Your task to perform on an android device: What's the weather going to be tomorrow? Image 0: 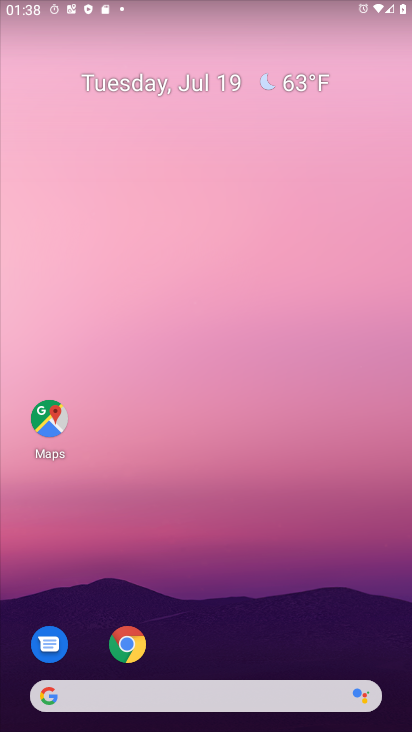
Step 0: drag from (188, 729) to (185, 243)
Your task to perform on an android device: What's the weather going to be tomorrow? Image 1: 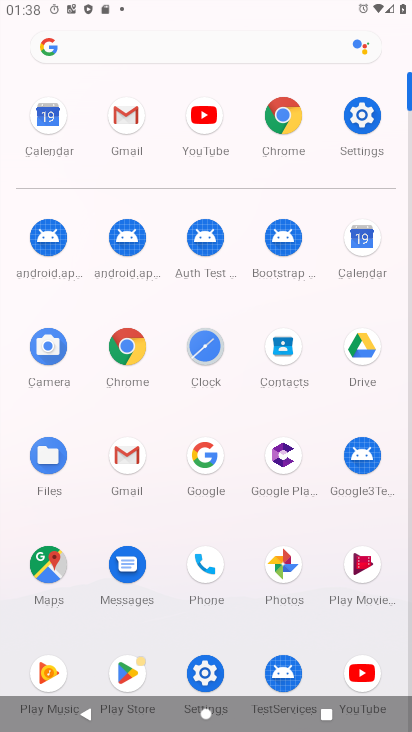
Step 1: click (192, 454)
Your task to perform on an android device: What's the weather going to be tomorrow? Image 2: 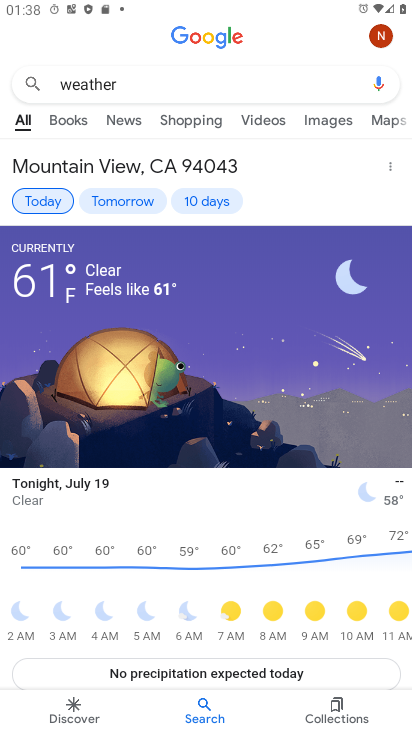
Step 2: click (127, 196)
Your task to perform on an android device: What's the weather going to be tomorrow? Image 3: 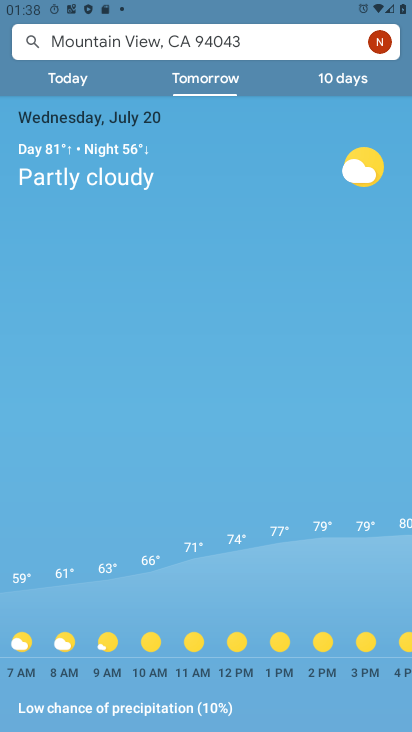
Step 3: task complete